Your task to perform on an android device: open sync settings in chrome Image 0: 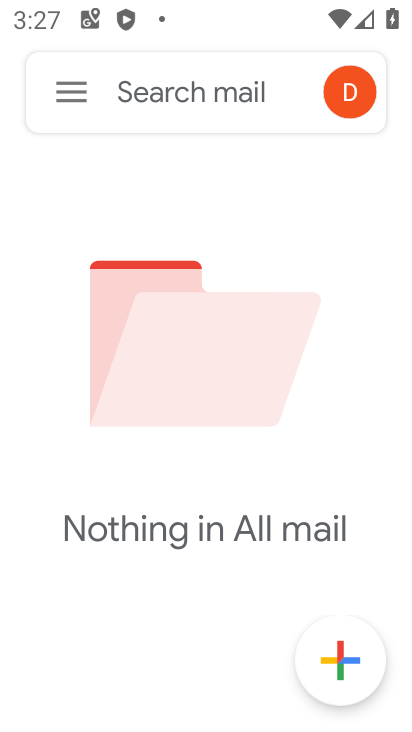
Step 0: press home button
Your task to perform on an android device: open sync settings in chrome Image 1: 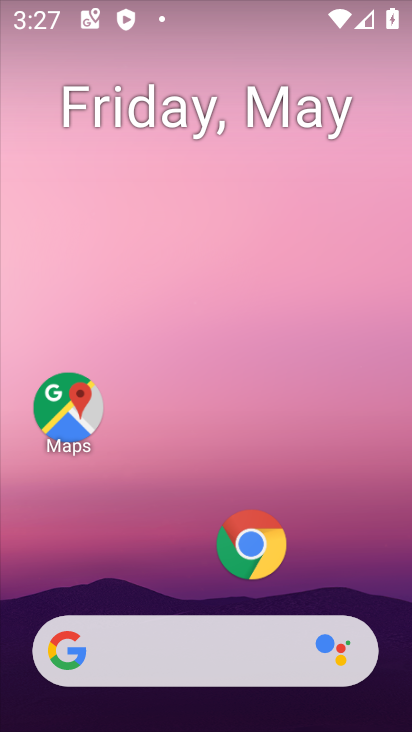
Step 1: click (273, 563)
Your task to perform on an android device: open sync settings in chrome Image 2: 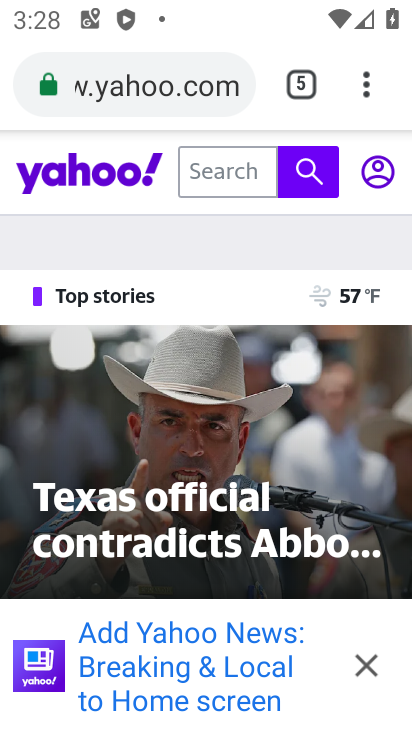
Step 2: drag from (369, 92) to (146, 611)
Your task to perform on an android device: open sync settings in chrome Image 3: 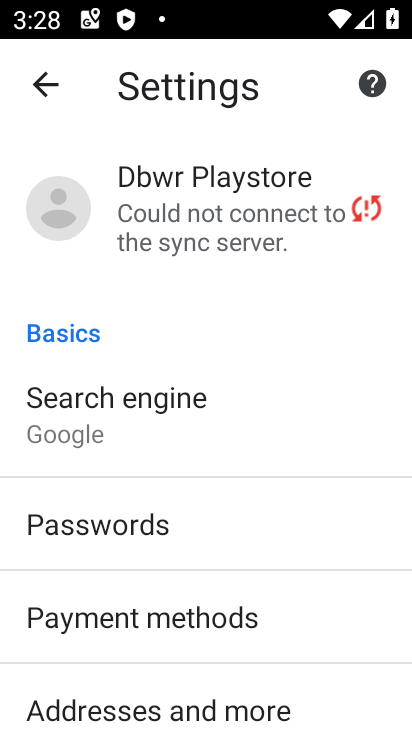
Step 3: click (219, 267)
Your task to perform on an android device: open sync settings in chrome Image 4: 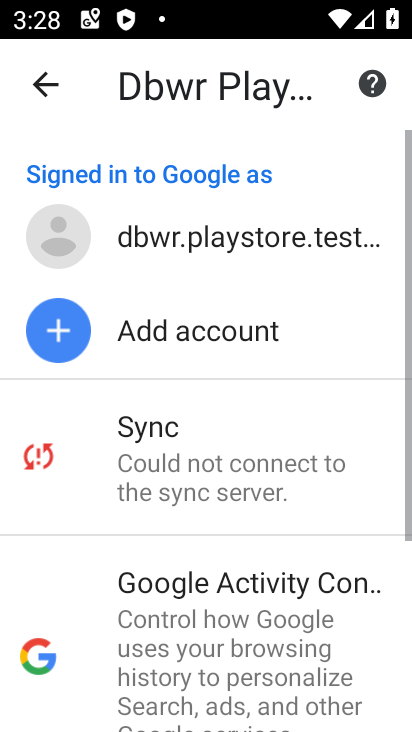
Step 4: click (208, 453)
Your task to perform on an android device: open sync settings in chrome Image 5: 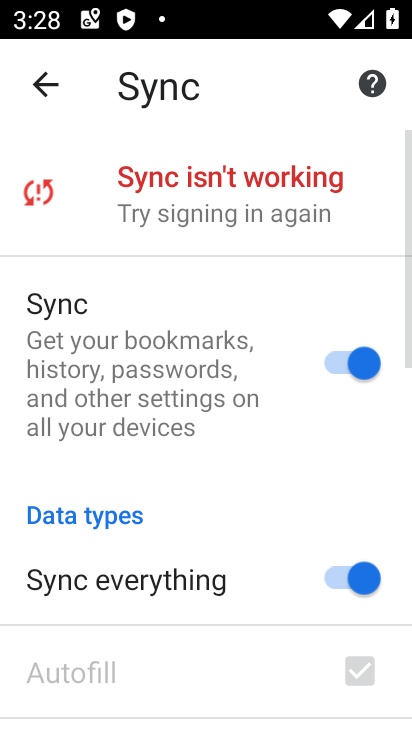
Step 5: task complete